Your task to perform on an android device: open a bookmark in the chrome app Image 0: 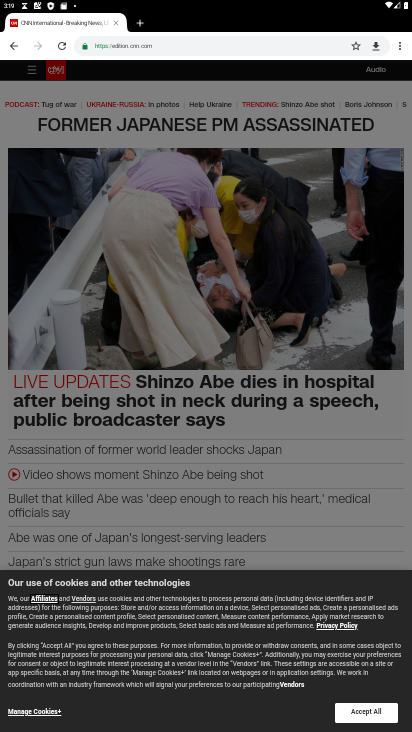
Step 0: click (398, 43)
Your task to perform on an android device: open a bookmark in the chrome app Image 1: 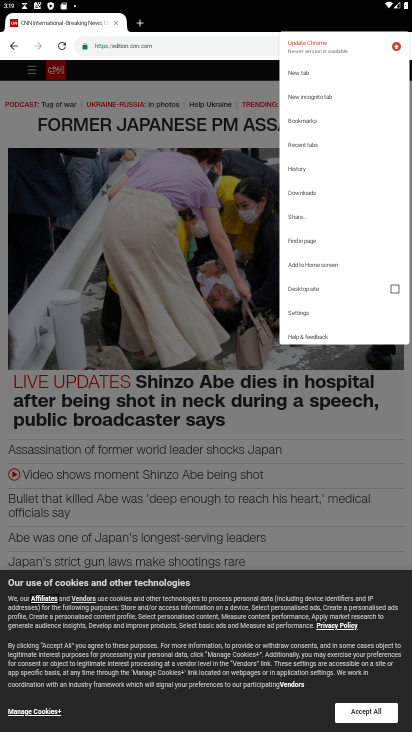
Step 1: click (304, 118)
Your task to perform on an android device: open a bookmark in the chrome app Image 2: 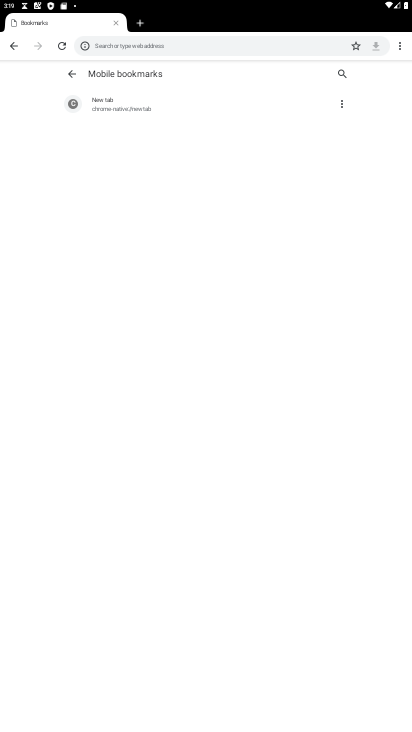
Step 2: click (141, 106)
Your task to perform on an android device: open a bookmark in the chrome app Image 3: 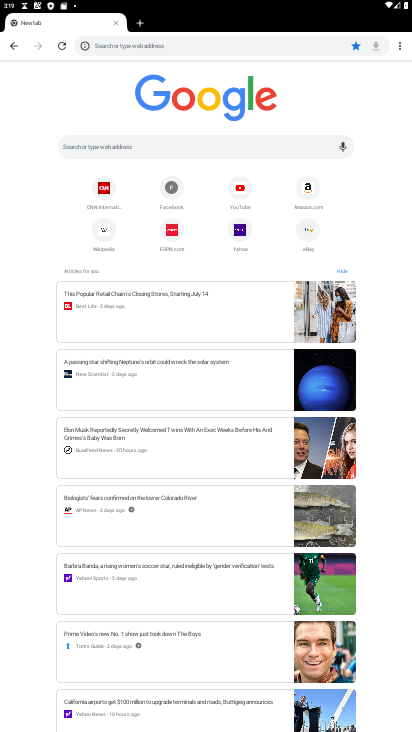
Step 3: task complete